Your task to perform on an android device: search for starred emails in the gmail app Image 0: 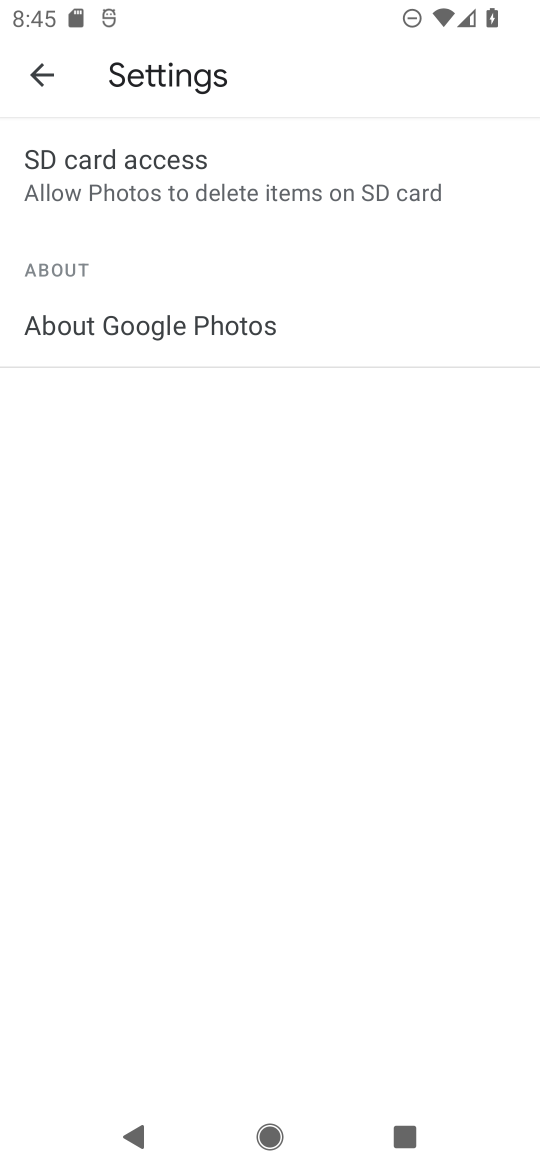
Step 0: press home button
Your task to perform on an android device: search for starred emails in the gmail app Image 1: 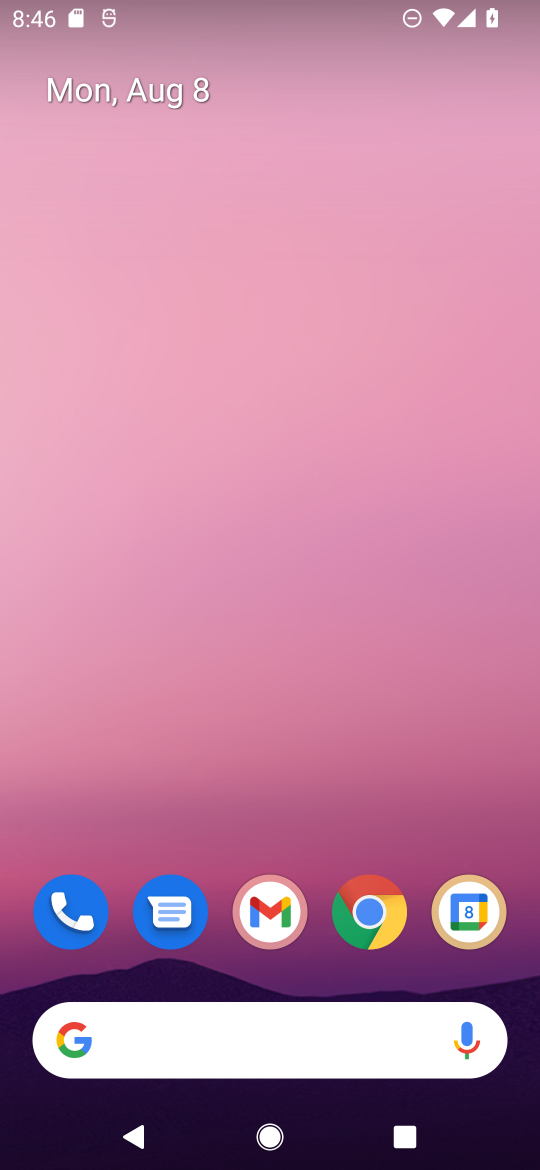
Step 1: drag from (434, 959) to (387, 79)
Your task to perform on an android device: search for starred emails in the gmail app Image 2: 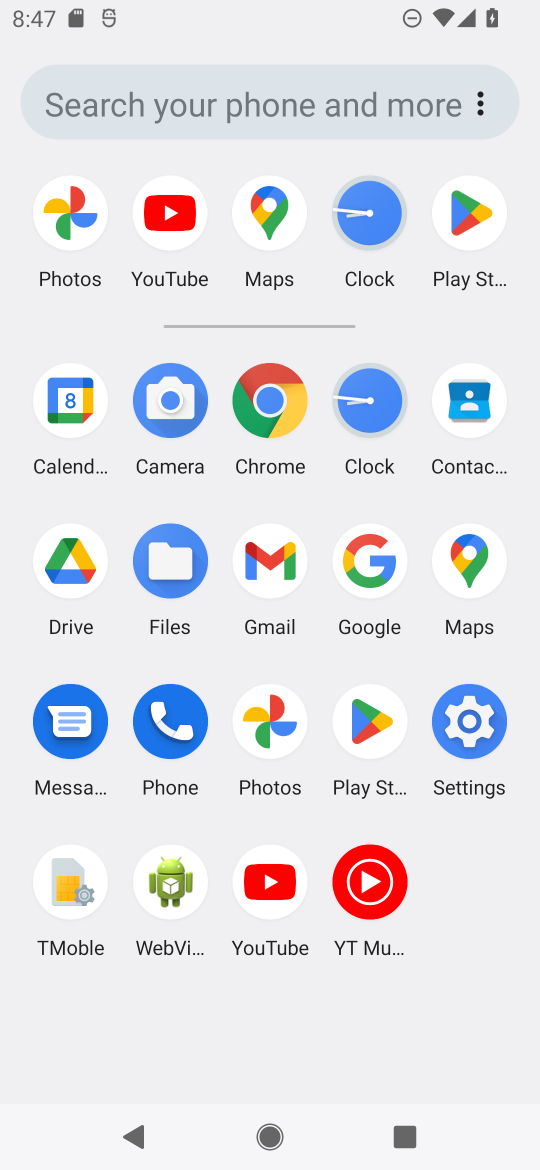
Step 2: click (256, 584)
Your task to perform on an android device: search for starred emails in the gmail app Image 3: 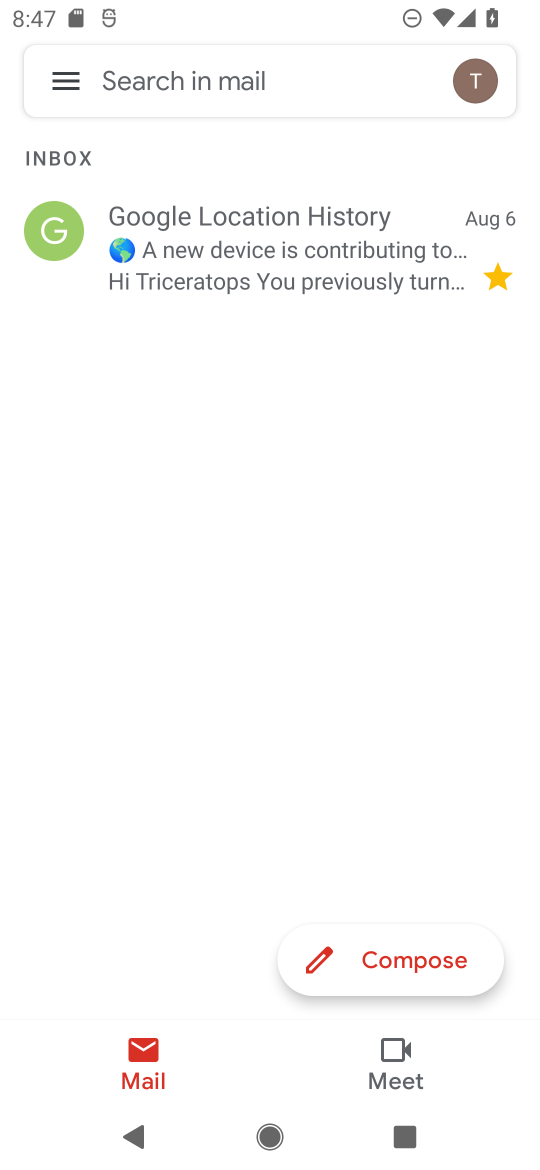
Step 3: click (58, 85)
Your task to perform on an android device: search for starred emails in the gmail app Image 4: 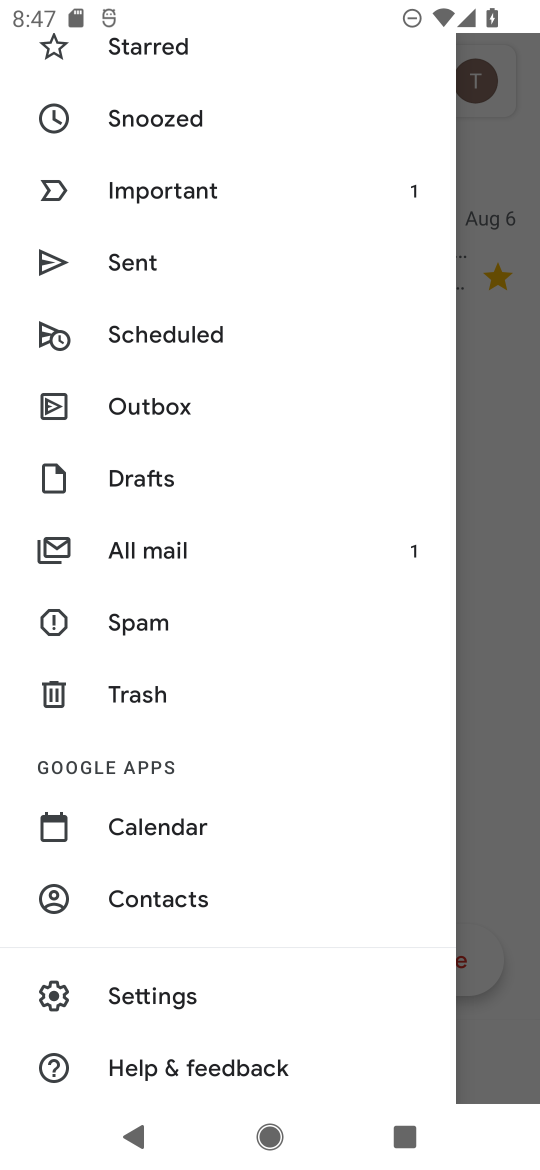
Step 4: click (115, 63)
Your task to perform on an android device: search for starred emails in the gmail app Image 5: 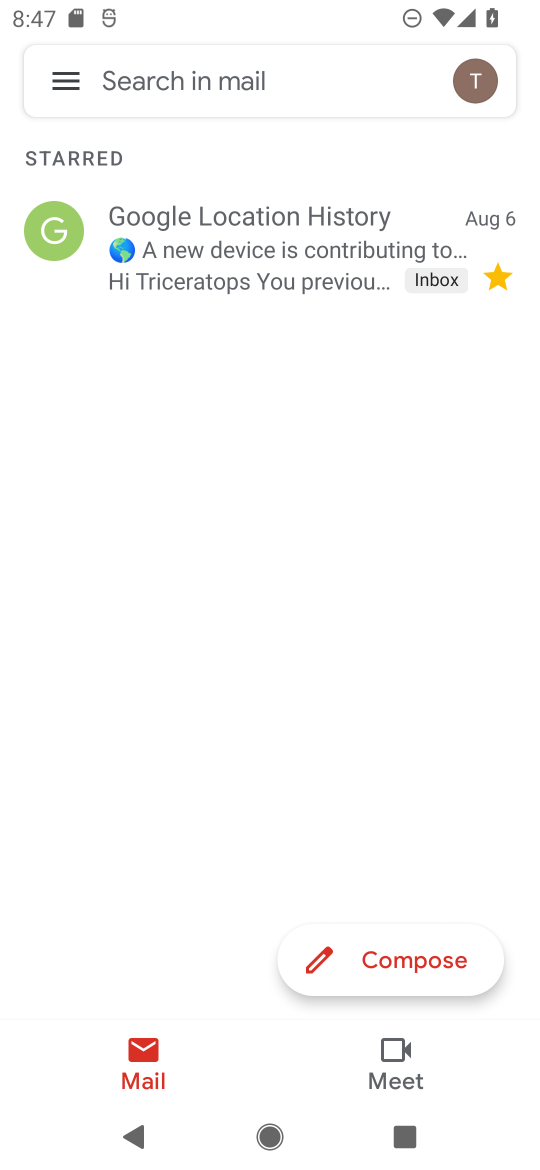
Step 5: task complete